Your task to perform on an android device: change the clock style Image 0: 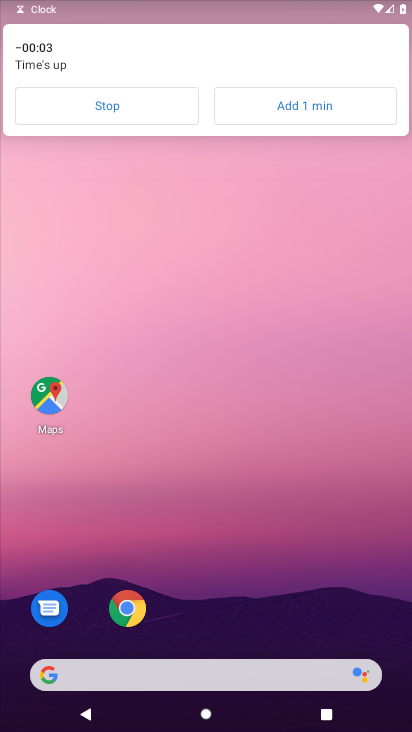
Step 0: click (103, 114)
Your task to perform on an android device: change the clock style Image 1: 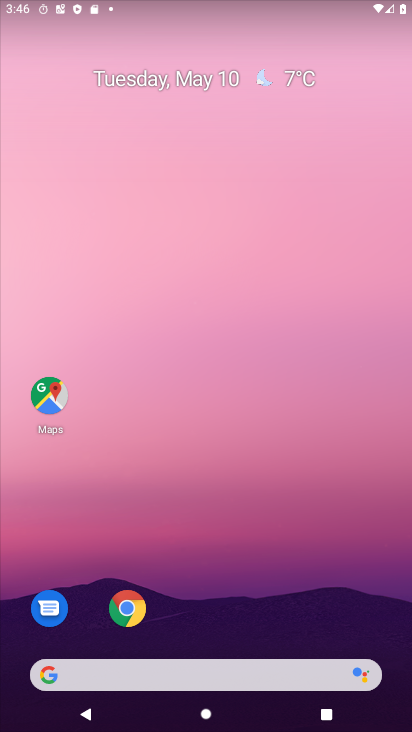
Step 1: drag from (335, 624) to (397, 5)
Your task to perform on an android device: change the clock style Image 2: 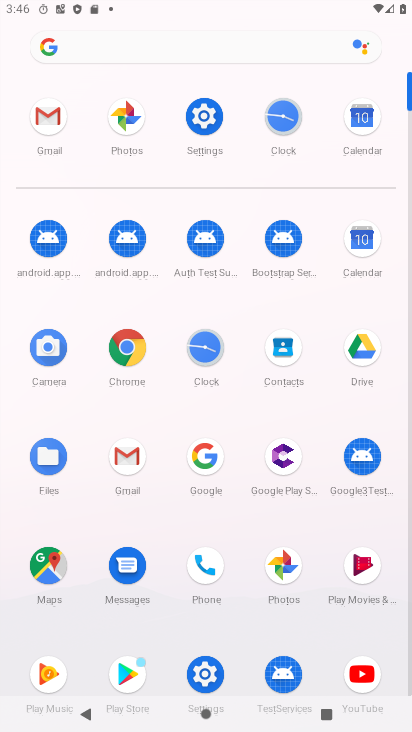
Step 2: click (276, 123)
Your task to perform on an android device: change the clock style Image 3: 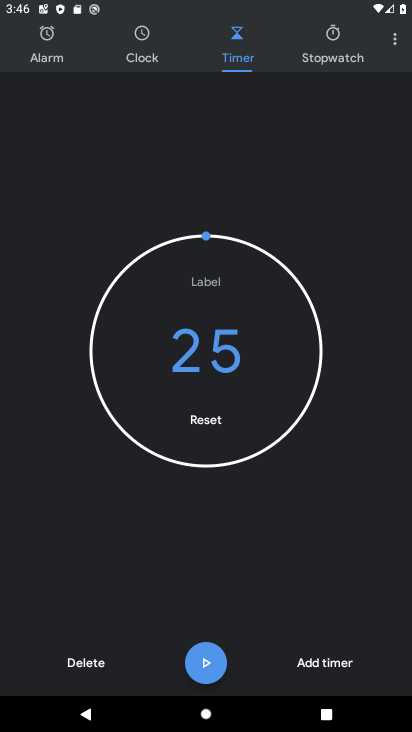
Step 3: click (395, 44)
Your task to perform on an android device: change the clock style Image 4: 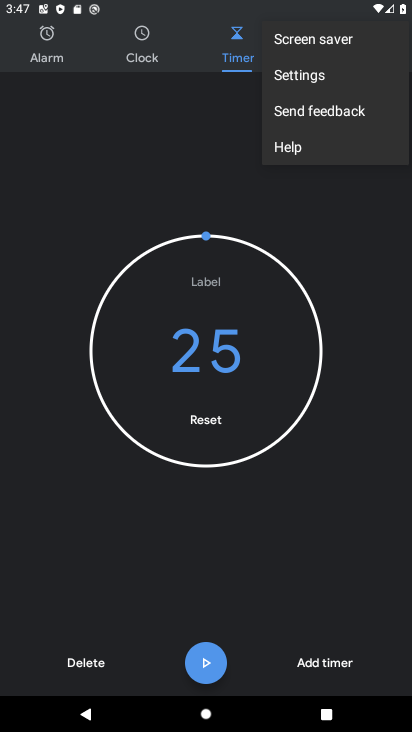
Step 4: click (320, 81)
Your task to perform on an android device: change the clock style Image 5: 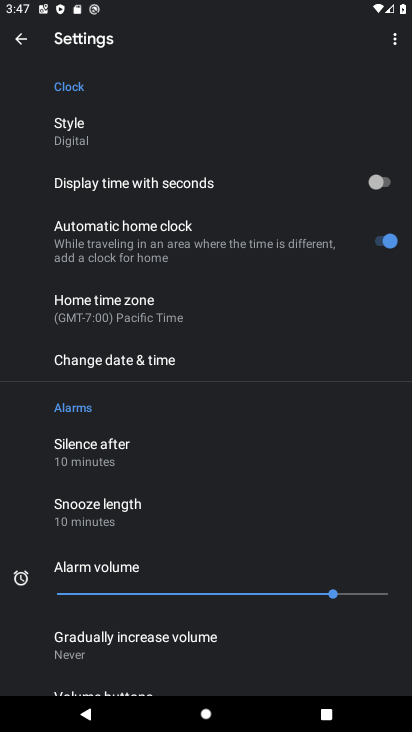
Step 5: click (80, 145)
Your task to perform on an android device: change the clock style Image 6: 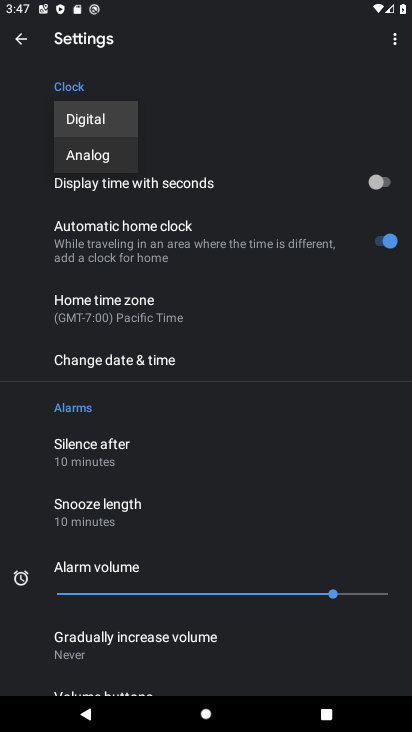
Step 6: click (100, 161)
Your task to perform on an android device: change the clock style Image 7: 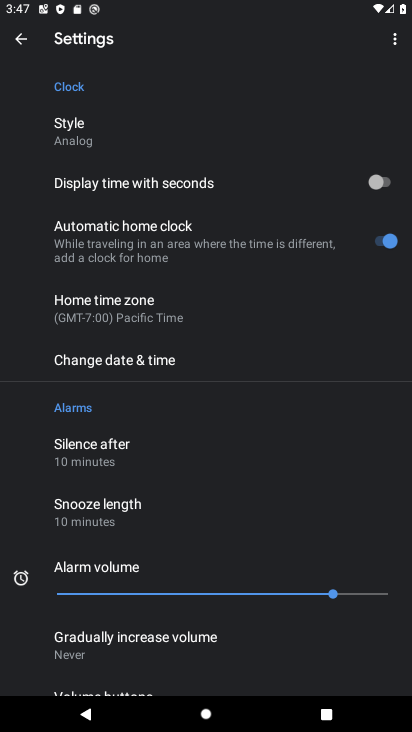
Step 7: task complete